Your task to perform on an android device: turn off sleep mode Image 0: 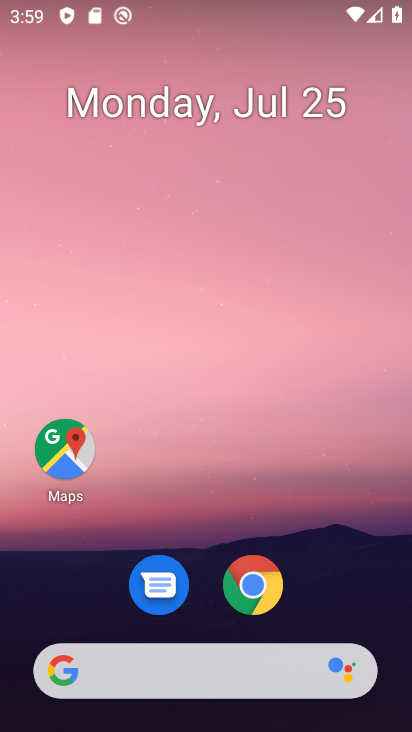
Step 0: drag from (323, 596) to (309, 14)
Your task to perform on an android device: turn off sleep mode Image 1: 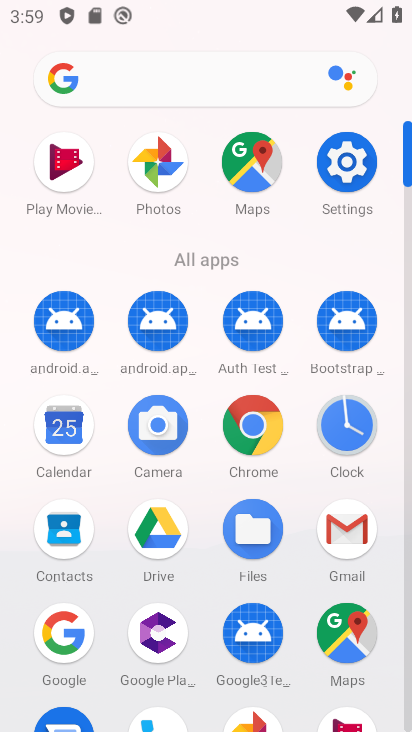
Step 1: click (343, 158)
Your task to perform on an android device: turn off sleep mode Image 2: 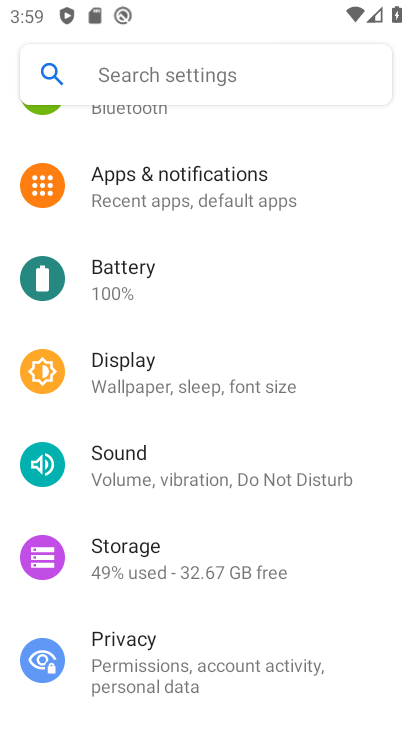
Step 2: click (154, 383)
Your task to perform on an android device: turn off sleep mode Image 3: 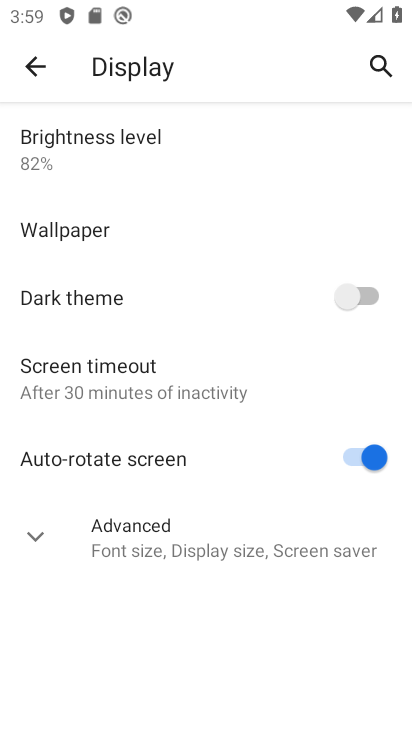
Step 3: click (34, 536)
Your task to perform on an android device: turn off sleep mode Image 4: 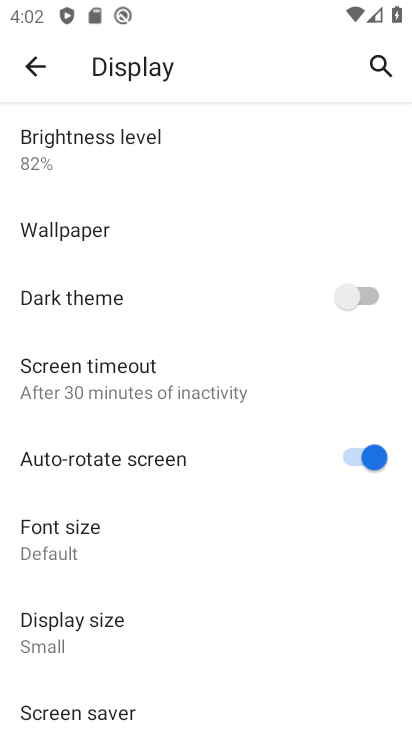
Step 4: task complete